Your task to perform on an android device: Open Wikipedia Image 0: 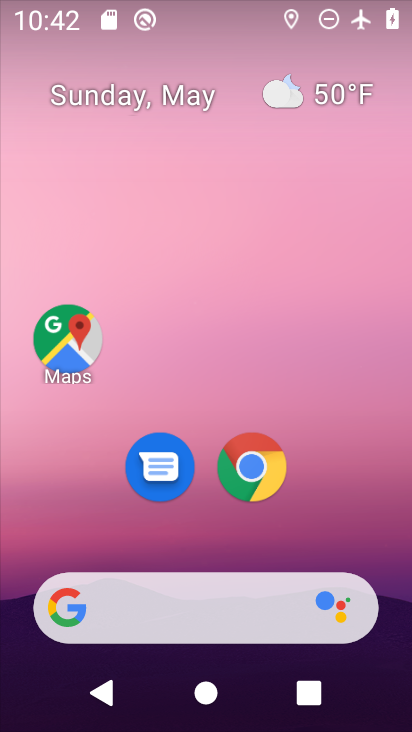
Step 0: drag from (178, 546) to (172, 171)
Your task to perform on an android device: Open Wikipedia Image 1: 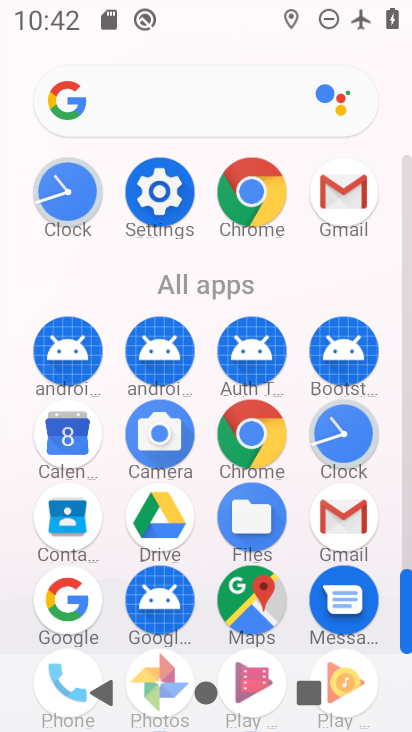
Step 1: click (247, 438)
Your task to perform on an android device: Open Wikipedia Image 2: 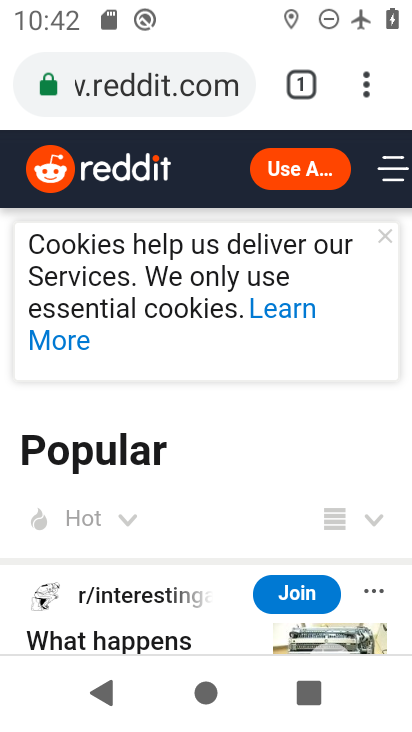
Step 2: click (288, 86)
Your task to perform on an android device: Open Wikipedia Image 3: 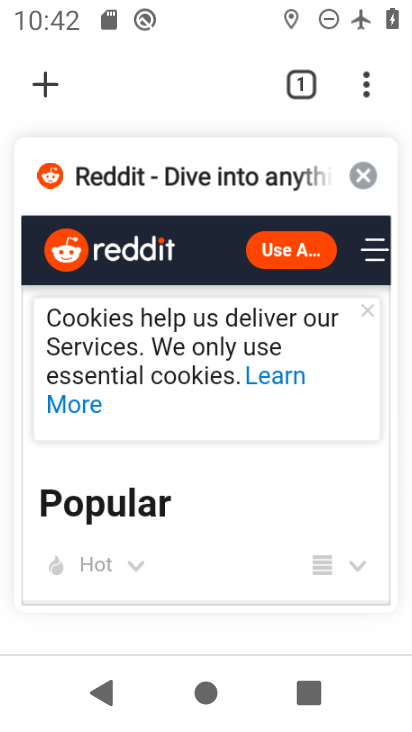
Step 3: click (45, 77)
Your task to perform on an android device: Open Wikipedia Image 4: 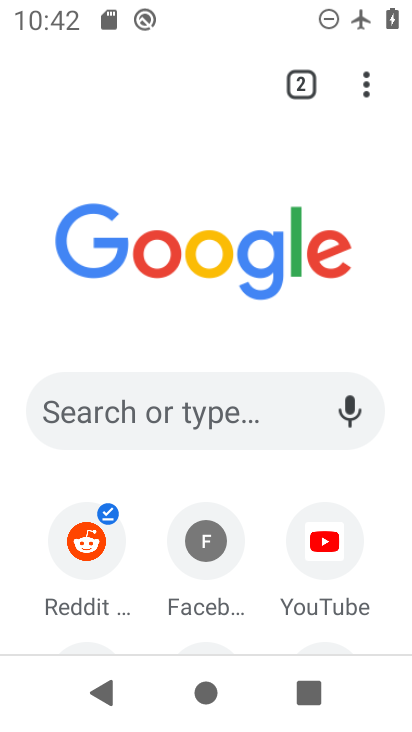
Step 4: type "Wikipedia"
Your task to perform on an android device: Open Wikipedia Image 5: 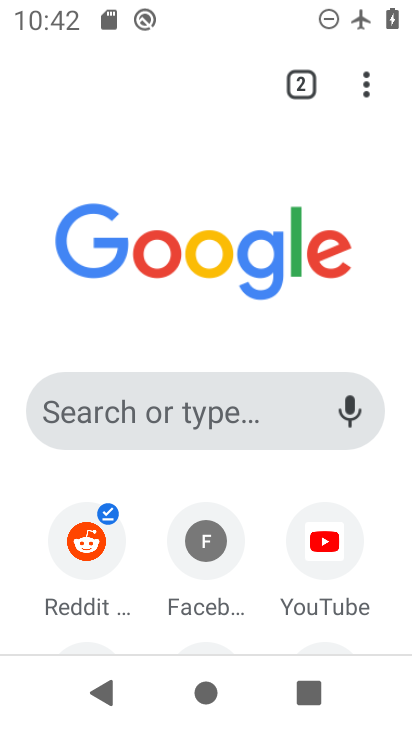
Step 5: click (144, 403)
Your task to perform on an android device: Open Wikipedia Image 6: 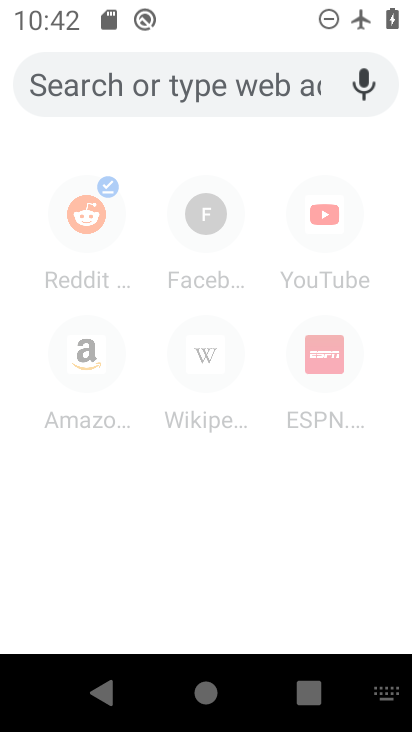
Step 6: type "Wikipedia"
Your task to perform on an android device: Open Wikipedia Image 7: 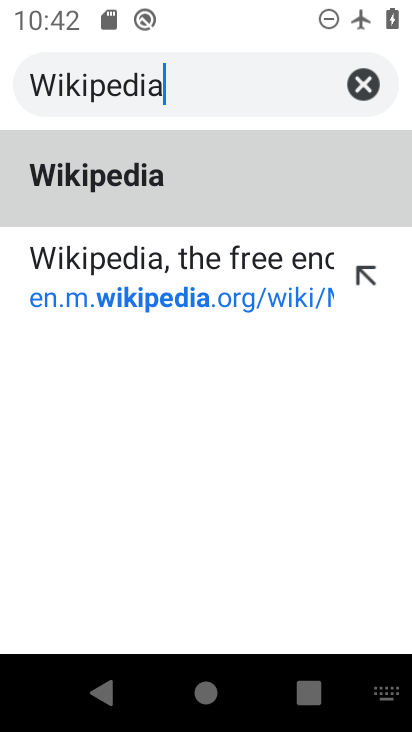
Step 7: click (56, 163)
Your task to perform on an android device: Open Wikipedia Image 8: 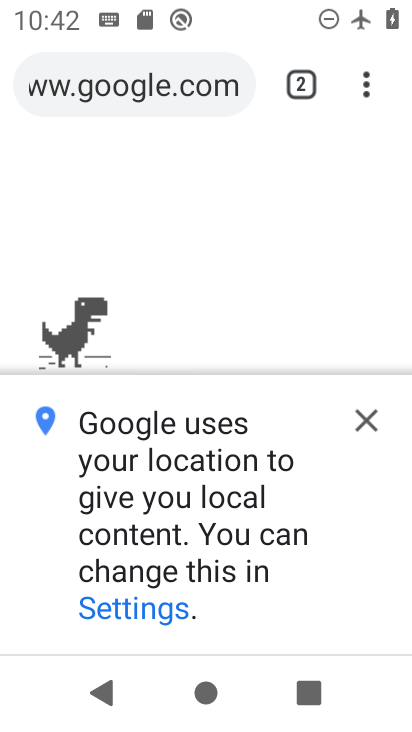
Step 8: task complete